Your task to perform on an android device: open the mobile data screen to see how much data has been used Image 0: 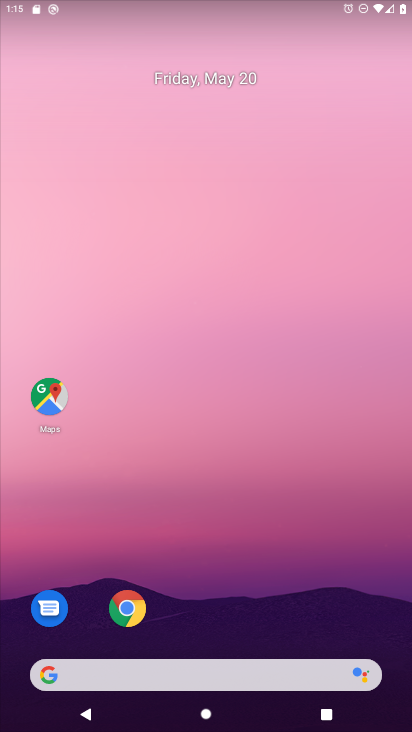
Step 0: press home button
Your task to perform on an android device: open the mobile data screen to see how much data has been used Image 1: 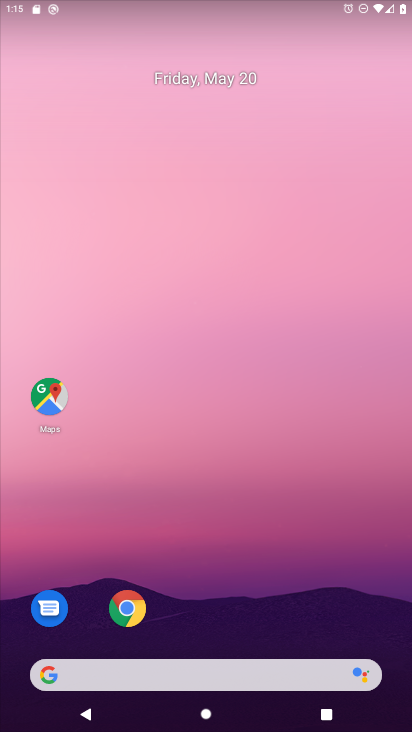
Step 1: drag from (215, 1) to (235, 660)
Your task to perform on an android device: open the mobile data screen to see how much data has been used Image 2: 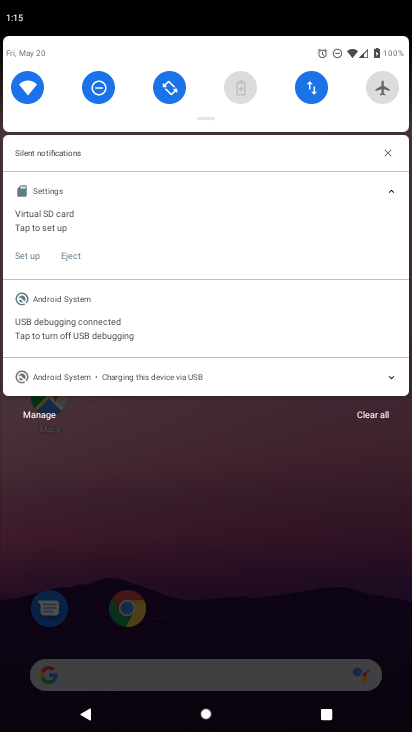
Step 2: click (303, 97)
Your task to perform on an android device: open the mobile data screen to see how much data has been used Image 3: 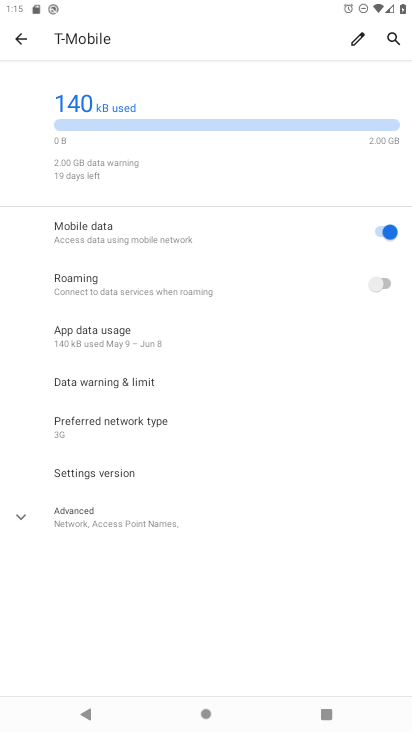
Step 3: task complete